Your task to perform on an android device: Go to Wikipedia Image 0: 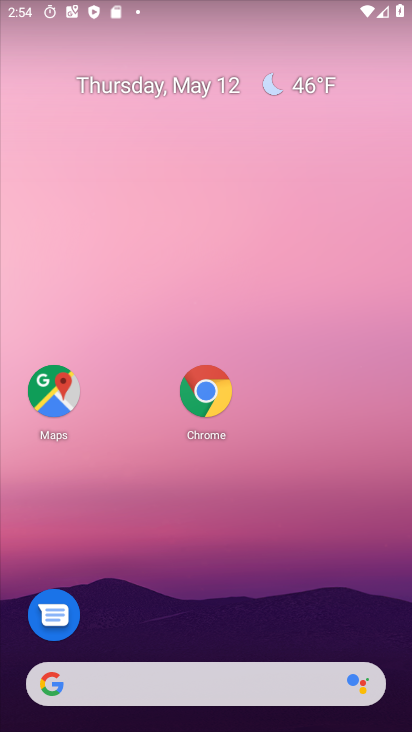
Step 0: drag from (191, 610) to (192, 69)
Your task to perform on an android device: Go to Wikipedia Image 1: 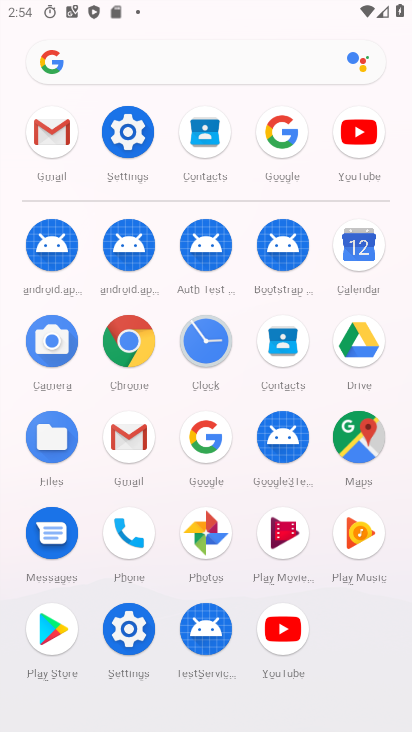
Step 1: click (130, 339)
Your task to perform on an android device: Go to Wikipedia Image 2: 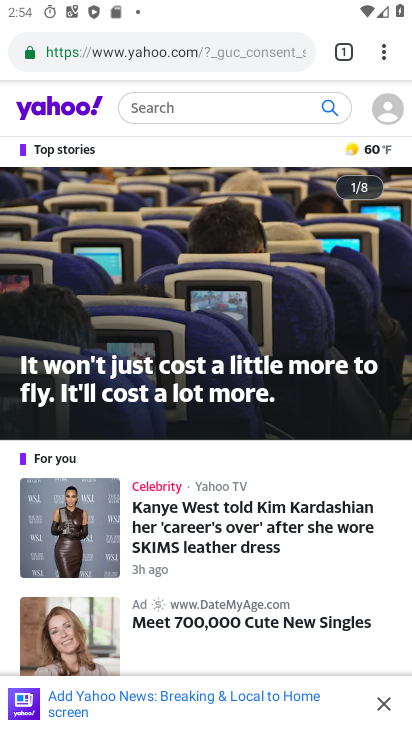
Step 2: press back button
Your task to perform on an android device: Go to Wikipedia Image 3: 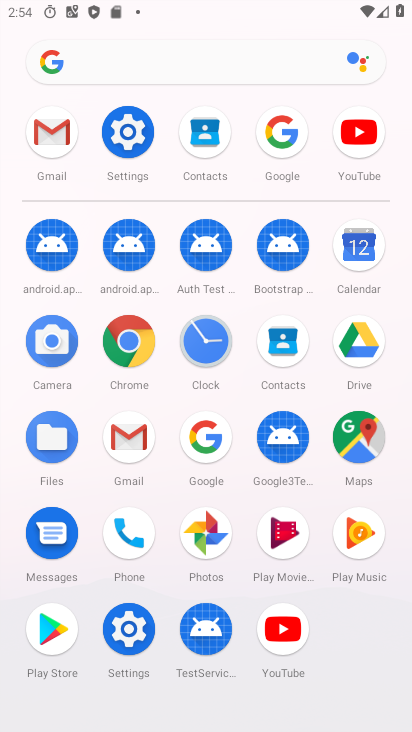
Step 3: click (128, 354)
Your task to perform on an android device: Go to Wikipedia Image 4: 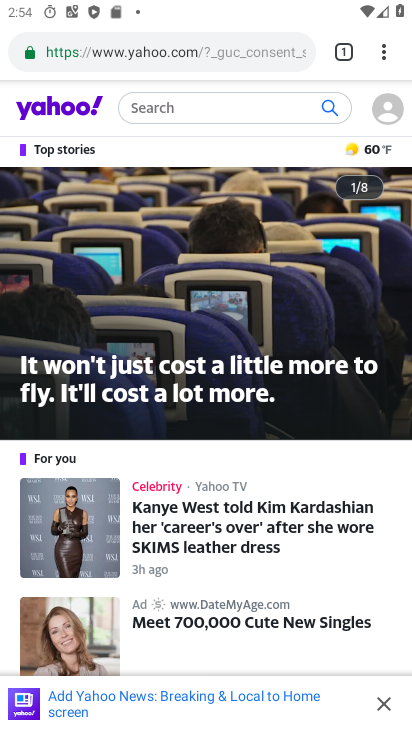
Step 4: click (254, 60)
Your task to perform on an android device: Go to Wikipedia Image 5: 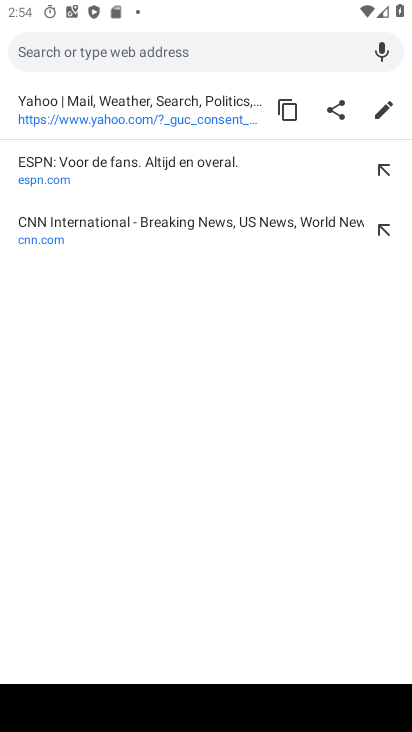
Step 5: type "wikkipedia"
Your task to perform on an android device: Go to Wikipedia Image 6: 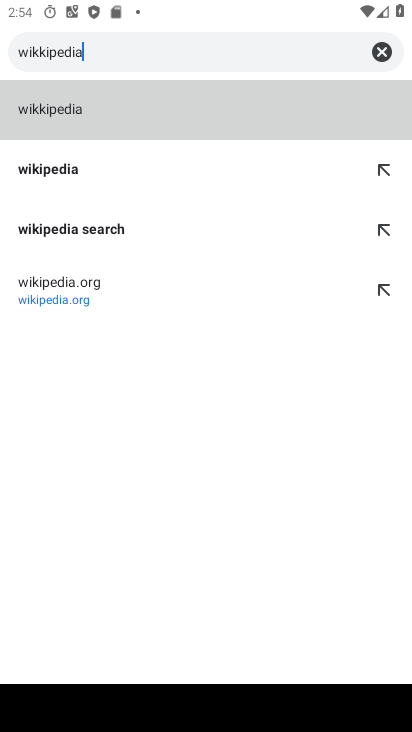
Step 6: click (153, 120)
Your task to perform on an android device: Go to Wikipedia Image 7: 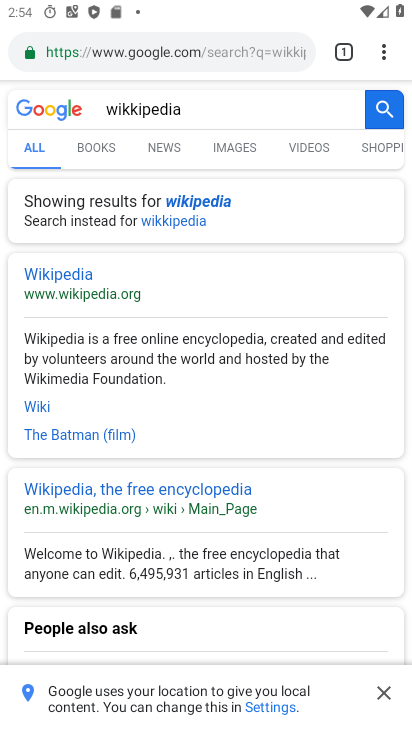
Step 7: click (68, 276)
Your task to perform on an android device: Go to Wikipedia Image 8: 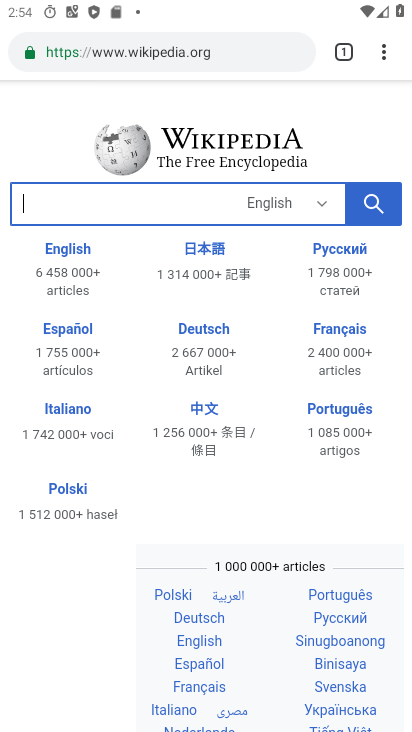
Step 8: task complete